Your task to perform on an android device: read, delete, or share a saved page in the chrome app Image 0: 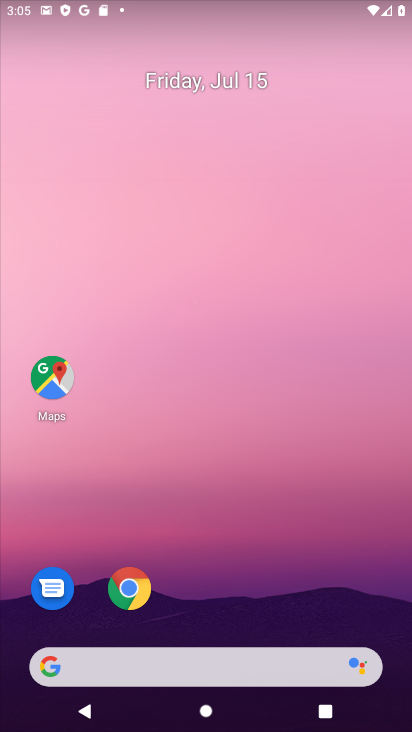
Step 0: drag from (318, 607) to (169, 94)
Your task to perform on an android device: read, delete, or share a saved page in the chrome app Image 1: 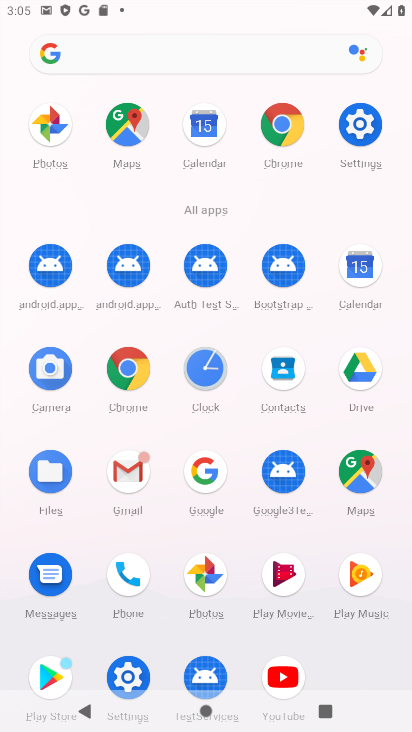
Step 1: click (287, 134)
Your task to perform on an android device: read, delete, or share a saved page in the chrome app Image 2: 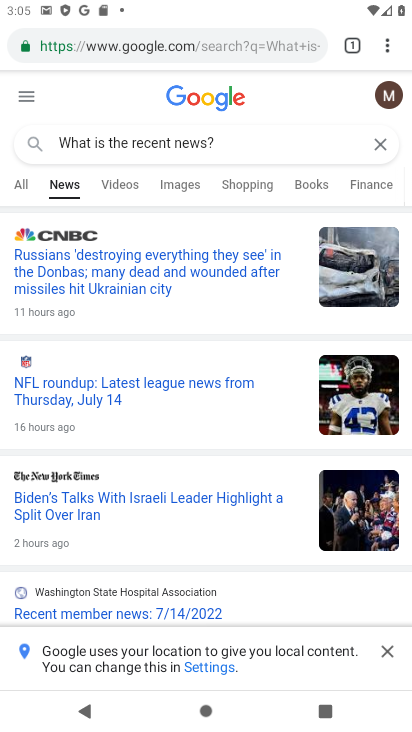
Step 2: click (394, 45)
Your task to perform on an android device: read, delete, or share a saved page in the chrome app Image 3: 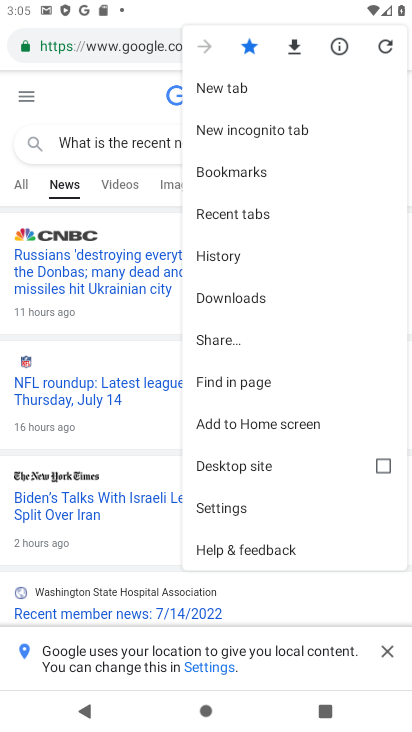
Step 3: click (278, 298)
Your task to perform on an android device: read, delete, or share a saved page in the chrome app Image 4: 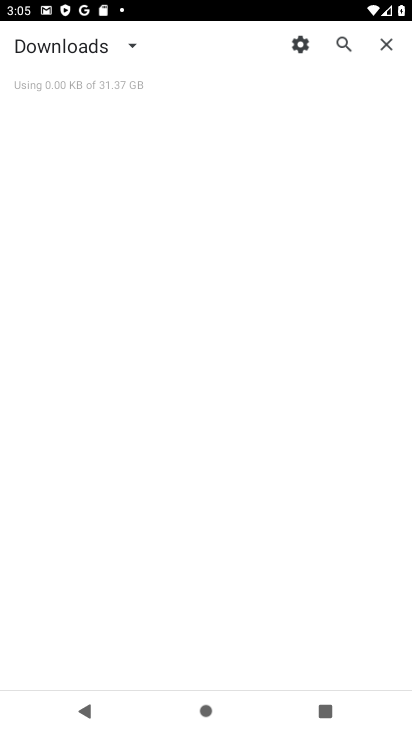
Step 4: click (119, 44)
Your task to perform on an android device: read, delete, or share a saved page in the chrome app Image 5: 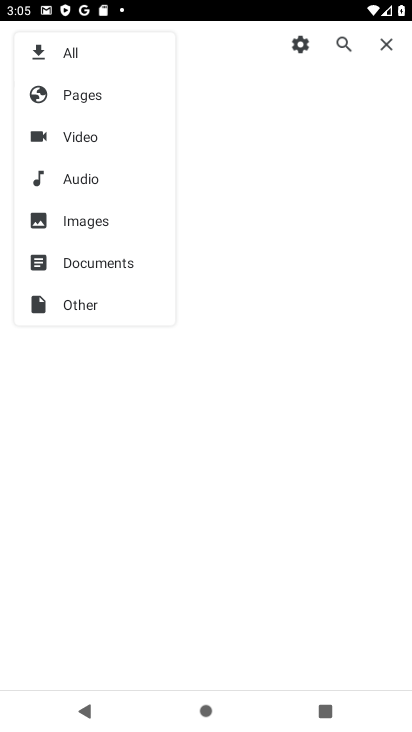
Step 5: click (79, 103)
Your task to perform on an android device: read, delete, or share a saved page in the chrome app Image 6: 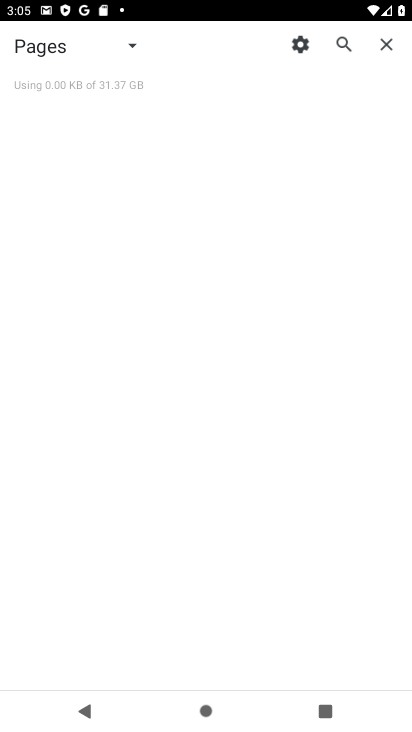
Step 6: task complete